Your task to perform on an android device: remove spam from my inbox in the gmail app Image 0: 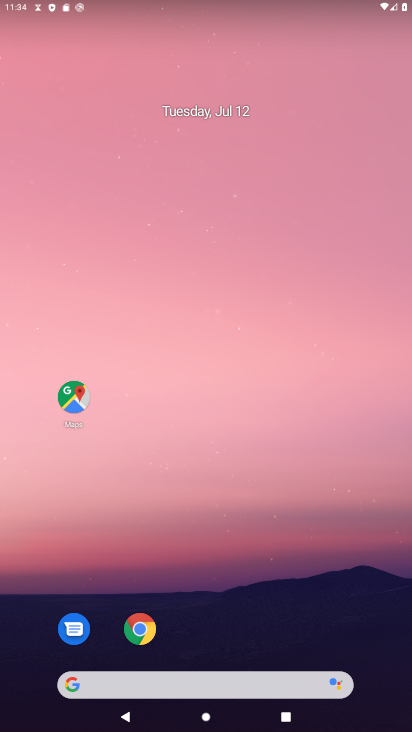
Step 0: drag from (297, 623) to (242, 47)
Your task to perform on an android device: remove spam from my inbox in the gmail app Image 1: 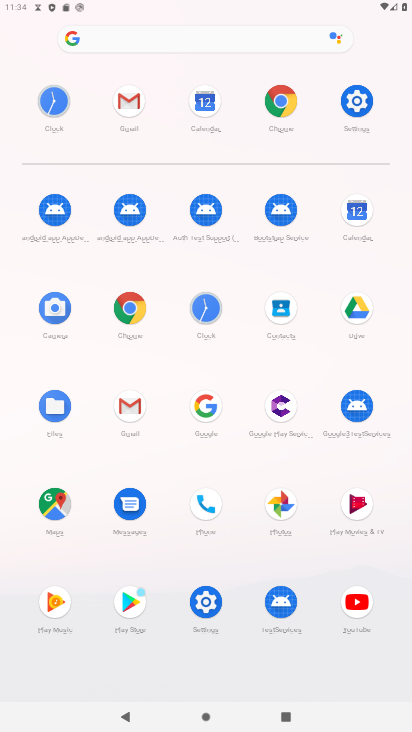
Step 1: click (137, 409)
Your task to perform on an android device: remove spam from my inbox in the gmail app Image 2: 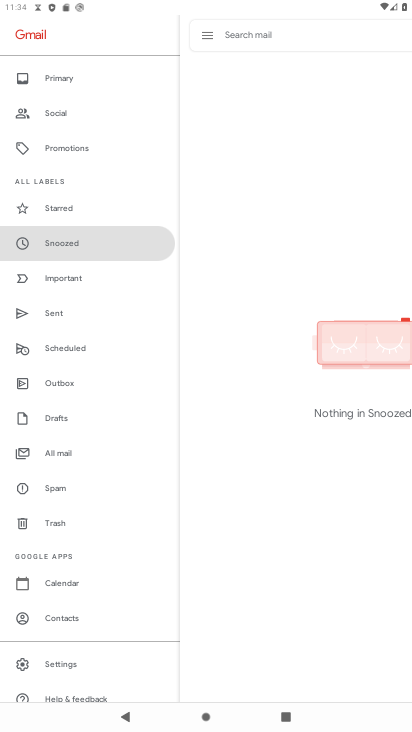
Step 2: click (56, 479)
Your task to perform on an android device: remove spam from my inbox in the gmail app Image 3: 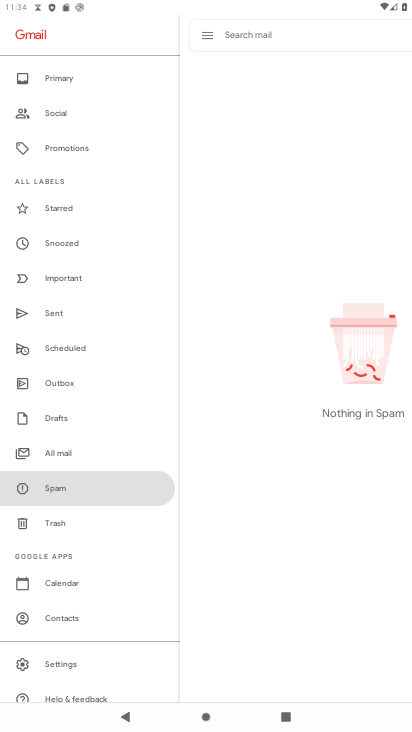
Step 3: task complete